Your task to perform on an android device: turn on showing notifications on the lock screen Image 0: 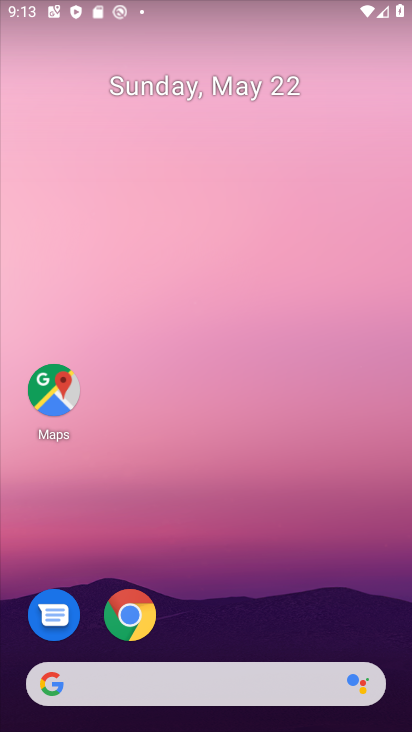
Step 0: drag from (277, 607) to (302, 173)
Your task to perform on an android device: turn on showing notifications on the lock screen Image 1: 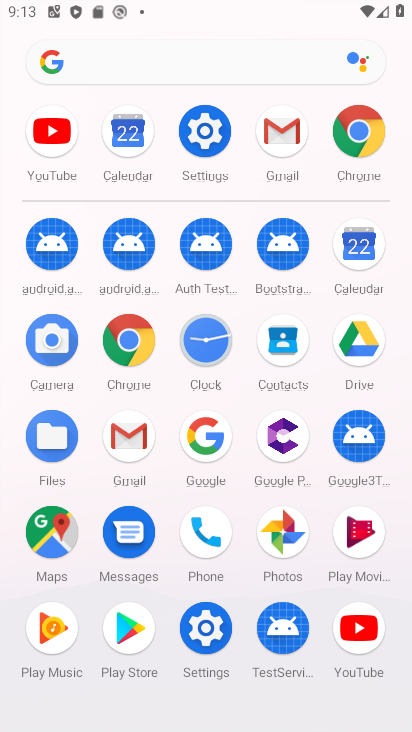
Step 1: click (197, 129)
Your task to perform on an android device: turn on showing notifications on the lock screen Image 2: 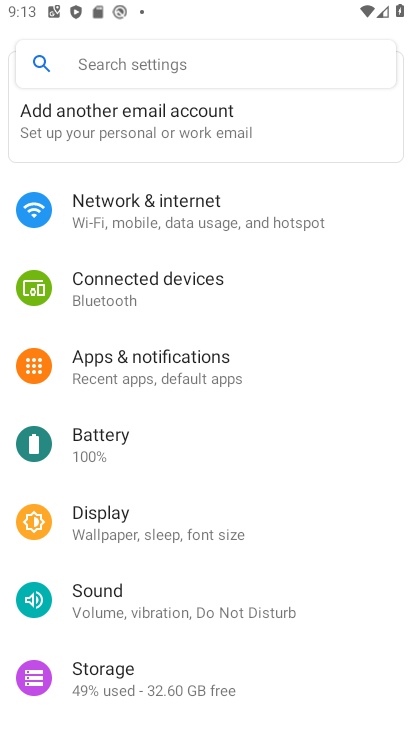
Step 2: click (164, 361)
Your task to perform on an android device: turn on showing notifications on the lock screen Image 3: 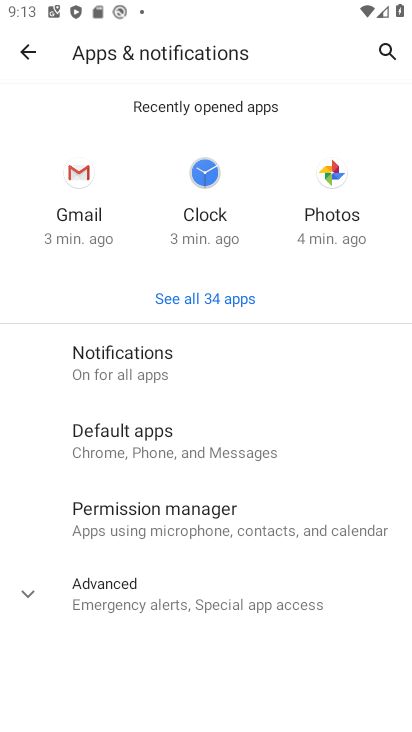
Step 3: click (233, 348)
Your task to perform on an android device: turn on showing notifications on the lock screen Image 4: 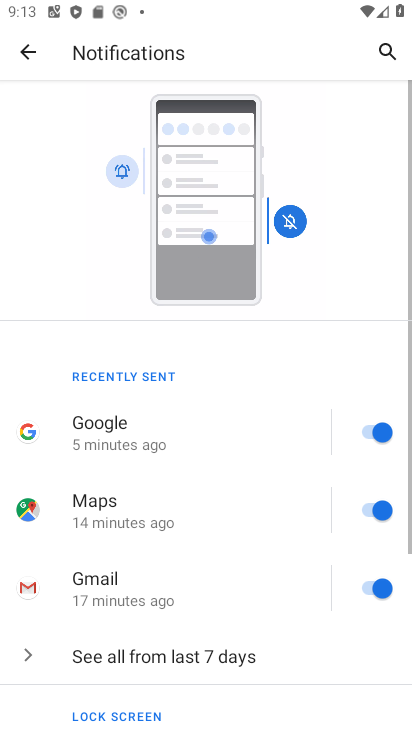
Step 4: drag from (173, 641) to (252, 304)
Your task to perform on an android device: turn on showing notifications on the lock screen Image 5: 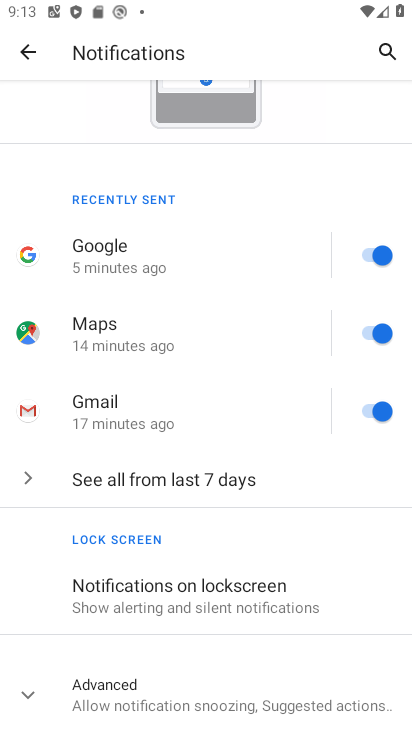
Step 5: click (170, 596)
Your task to perform on an android device: turn on showing notifications on the lock screen Image 6: 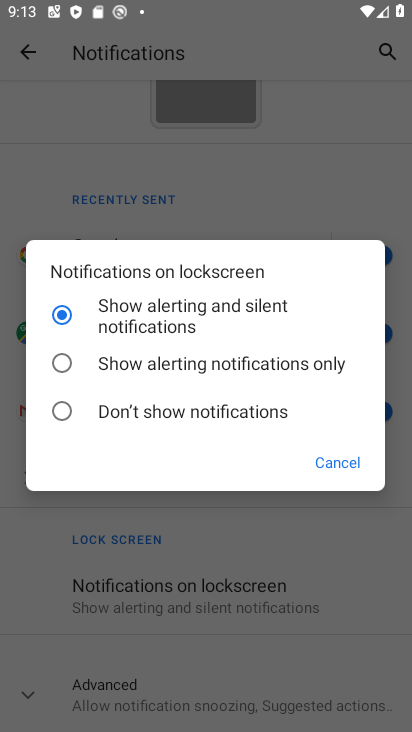
Step 6: click (158, 353)
Your task to perform on an android device: turn on showing notifications on the lock screen Image 7: 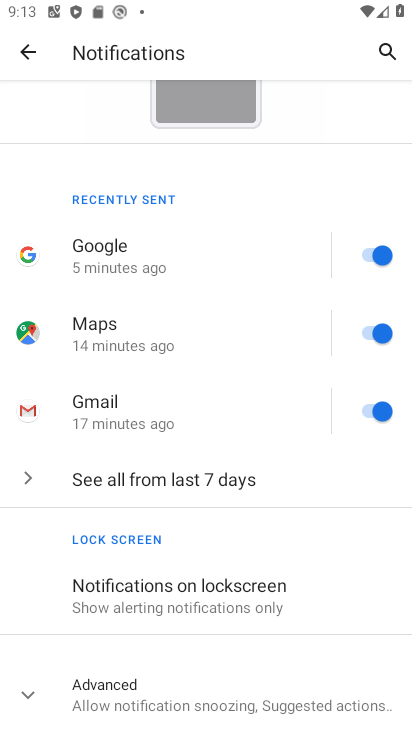
Step 7: task complete